Your task to perform on an android device: clear history in the chrome app Image 0: 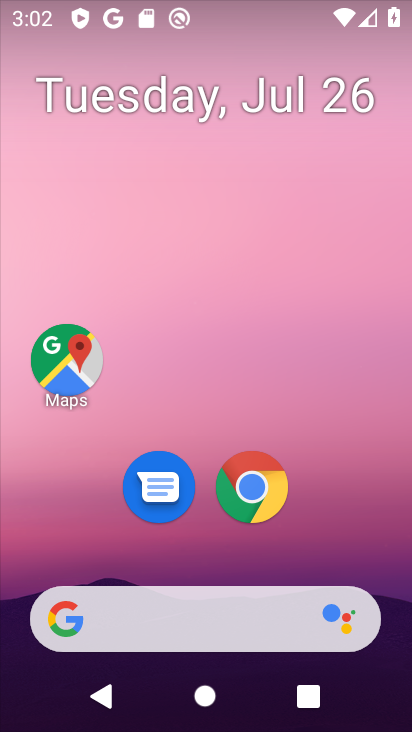
Step 0: click (256, 475)
Your task to perform on an android device: clear history in the chrome app Image 1: 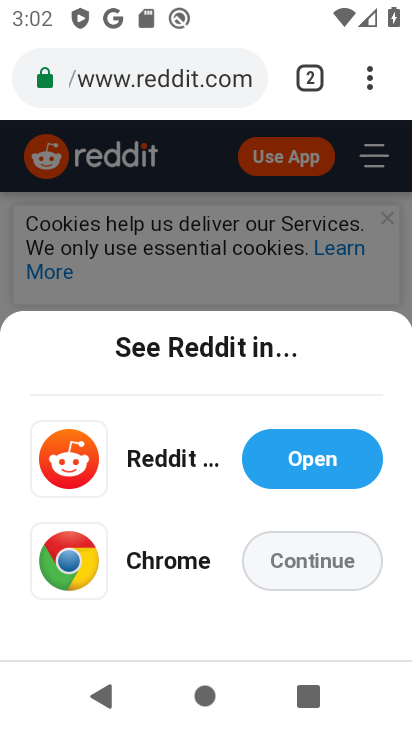
Step 1: drag from (365, 69) to (144, 536)
Your task to perform on an android device: clear history in the chrome app Image 2: 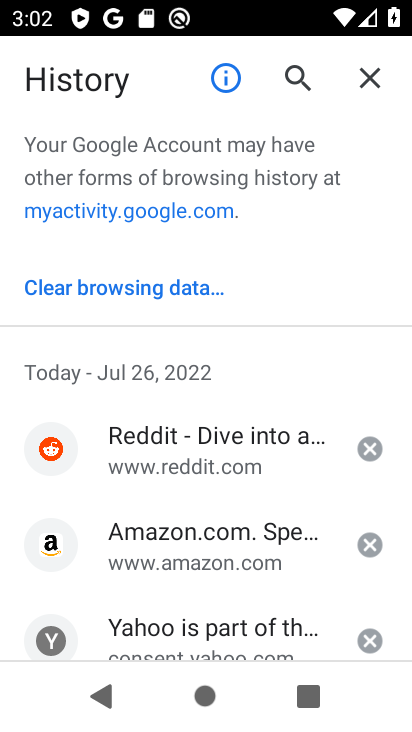
Step 2: click (100, 290)
Your task to perform on an android device: clear history in the chrome app Image 3: 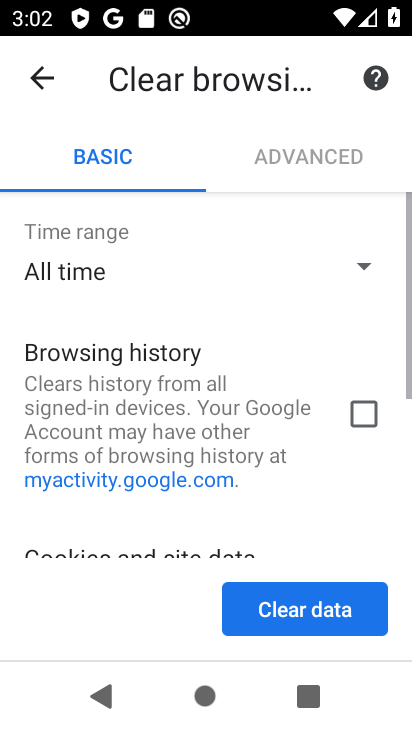
Step 3: click (377, 416)
Your task to perform on an android device: clear history in the chrome app Image 4: 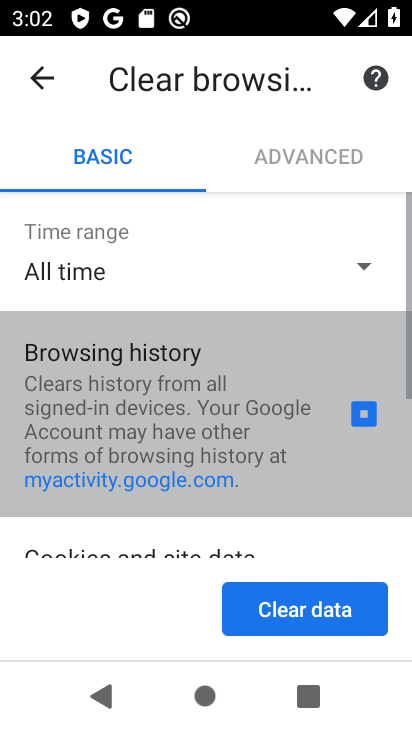
Step 4: drag from (160, 500) to (252, 120)
Your task to perform on an android device: clear history in the chrome app Image 5: 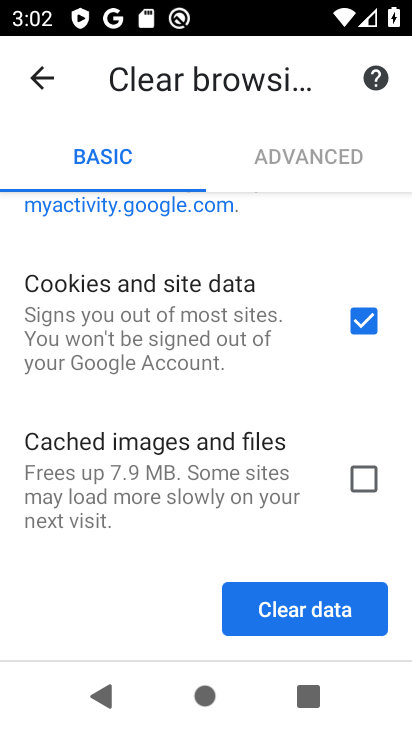
Step 5: click (361, 478)
Your task to perform on an android device: clear history in the chrome app Image 6: 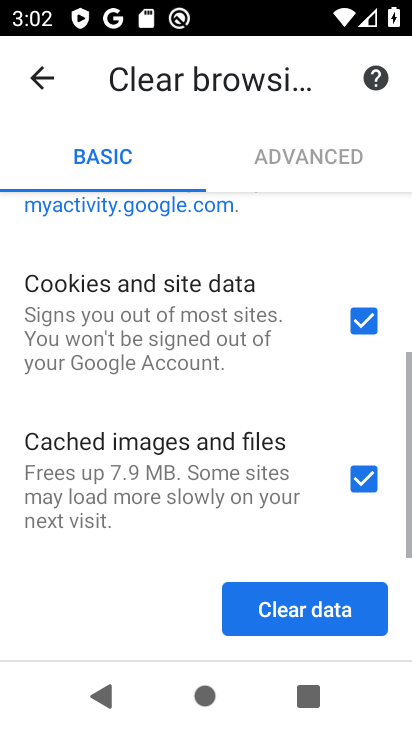
Step 6: click (261, 621)
Your task to perform on an android device: clear history in the chrome app Image 7: 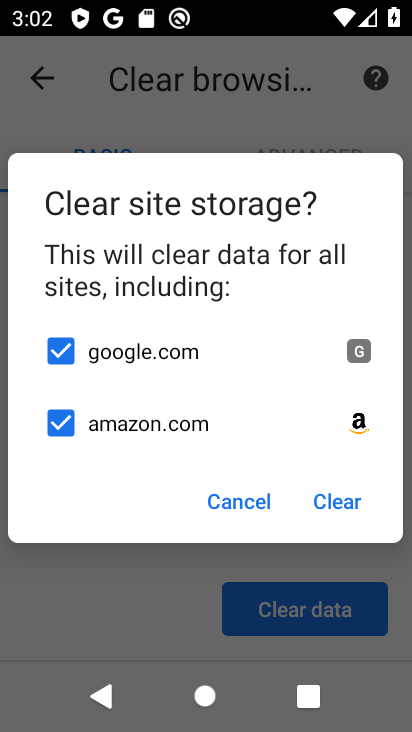
Step 7: click (323, 500)
Your task to perform on an android device: clear history in the chrome app Image 8: 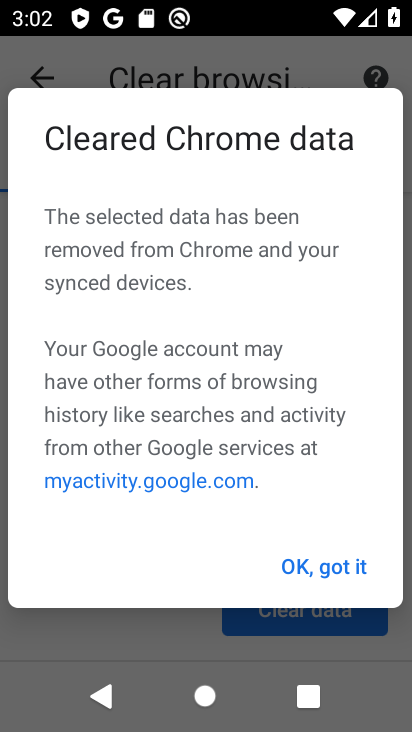
Step 8: task complete